Your task to perform on an android device: Open notification settings Image 0: 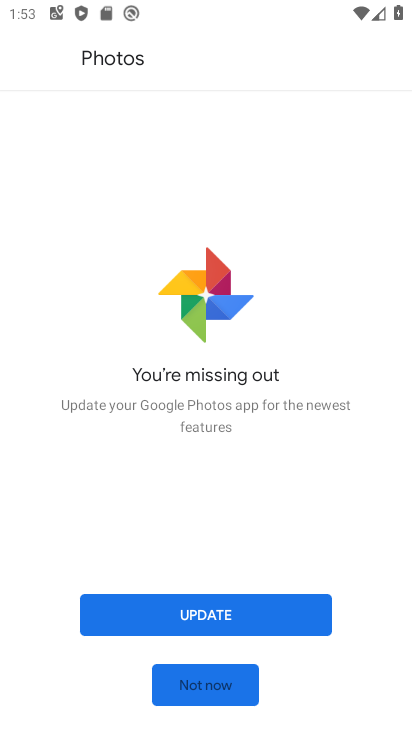
Step 0: press home button
Your task to perform on an android device: Open notification settings Image 1: 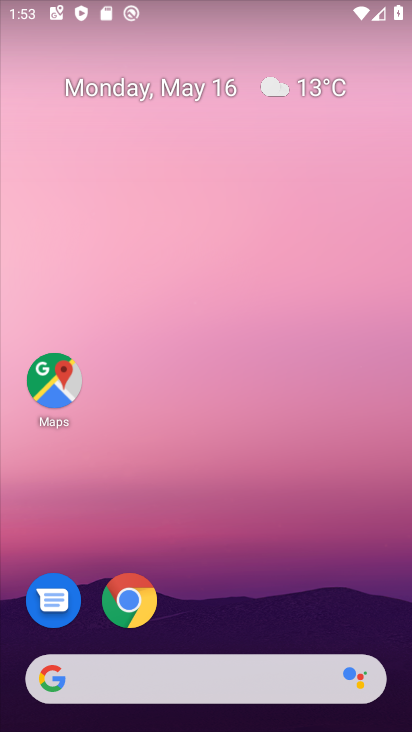
Step 1: drag from (310, 569) to (329, 123)
Your task to perform on an android device: Open notification settings Image 2: 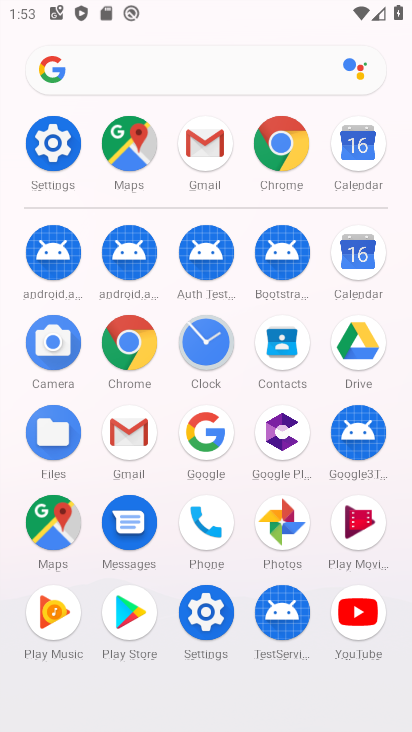
Step 2: click (50, 135)
Your task to perform on an android device: Open notification settings Image 3: 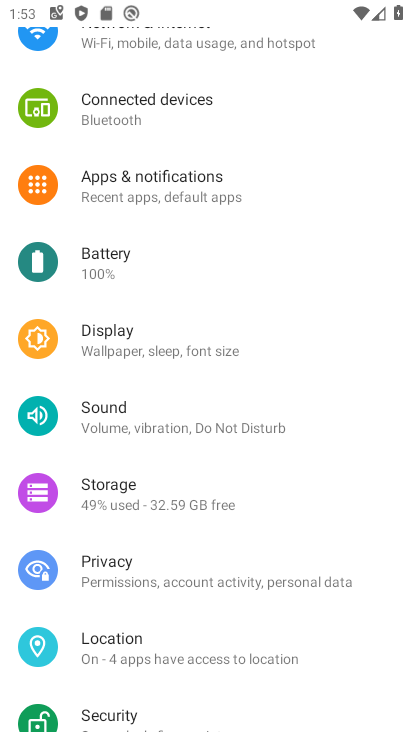
Step 3: click (144, 191)
Your task to perform on an android device: Open notification settings Image 4: 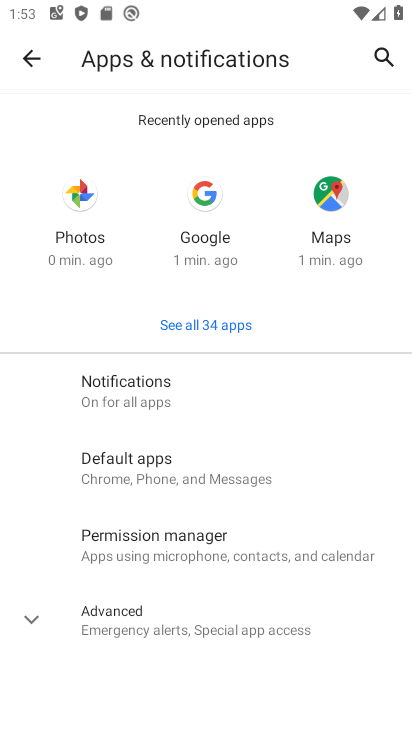
Step 4: click (155, 400)
Your task to perform on an android device: Open notification settings Image 5: 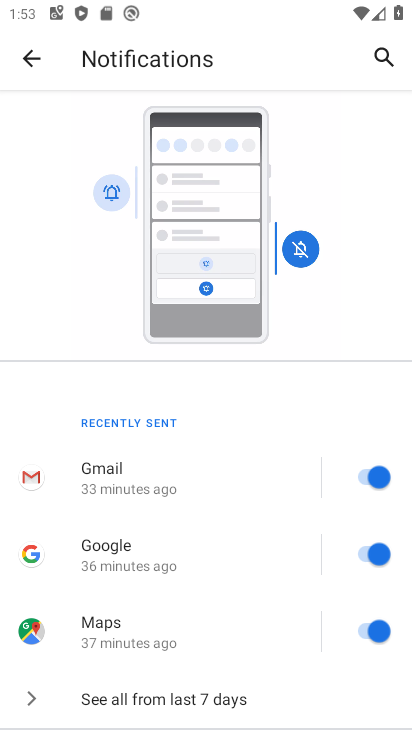
Step 5: task complete